Your task to perform on an android device: turn notification dots on Image 0: 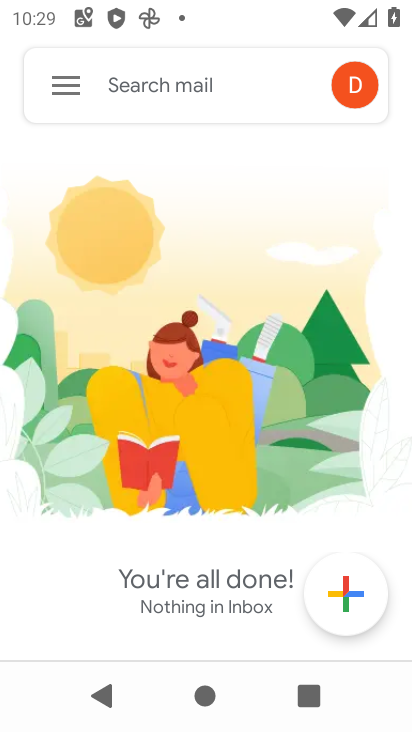
Step 0: press home button
Your task to perform on an android device: turn notification dots on Image 1: 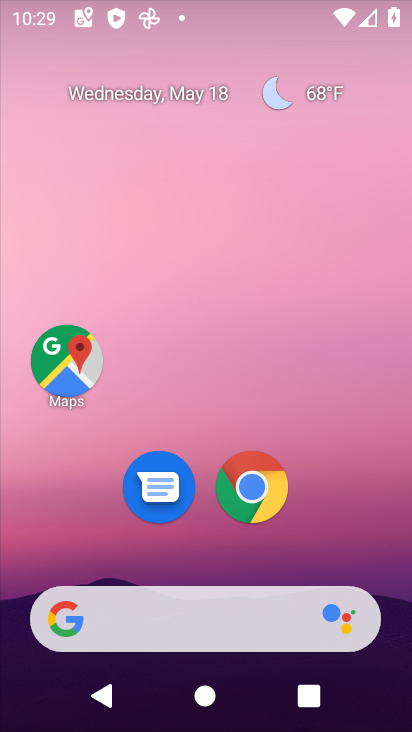
Step 1: drag from (391, 539) to (294, 189)
Your task to perform on an android device: turn notification dots on Image 2: 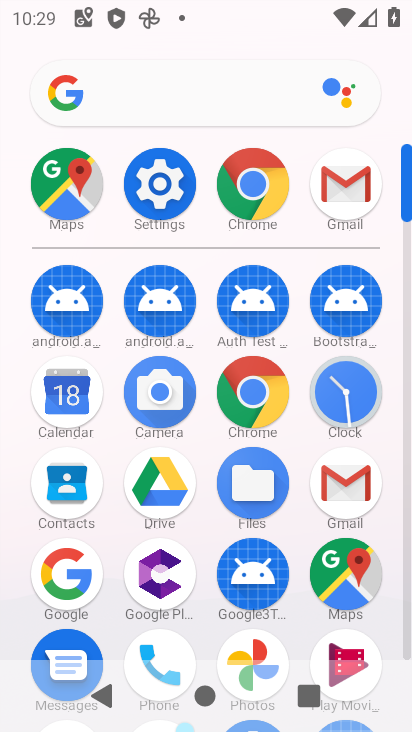
Step 2: click (164, 207)
Your task to perform on an android device: turn notification dots on Image 3: 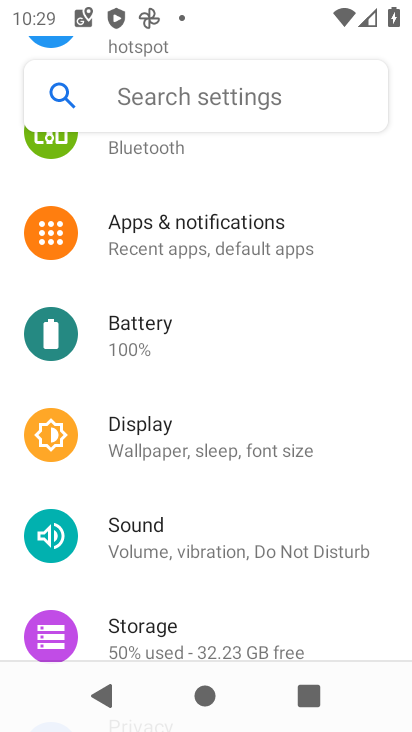
Step 3: click (184, 241)
Your task to perform on an android device: turn notification dots on Image 4: 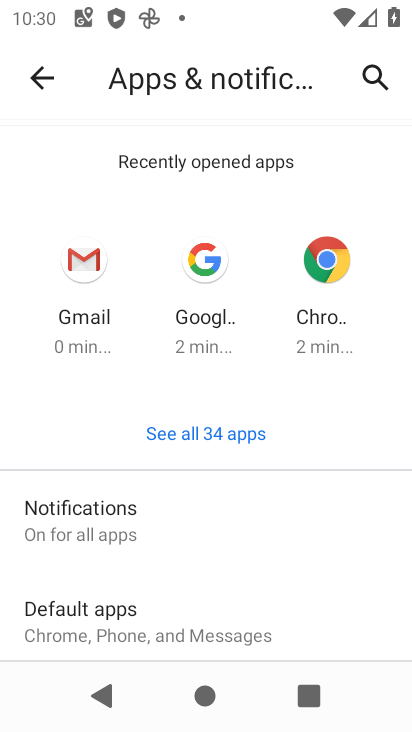
Step 4: drag from (115, 555) to (122, 276)
Your task to perform on an android device: turn notification dots on Image 5: 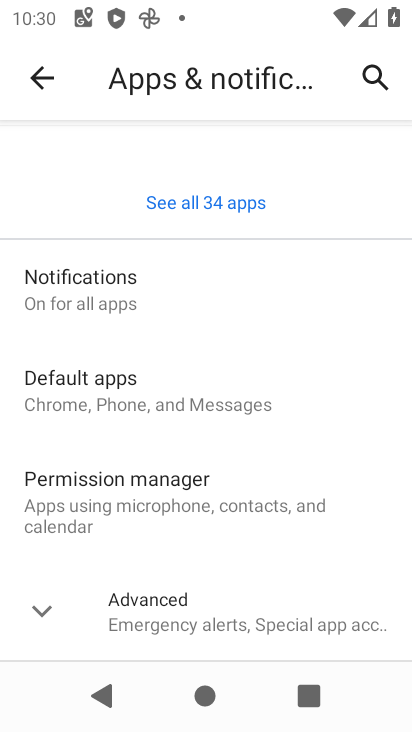
Step 5: drag from (200, 575) to (199, 307)
Your task to perform on an android device: turn notification dots on Image 6: 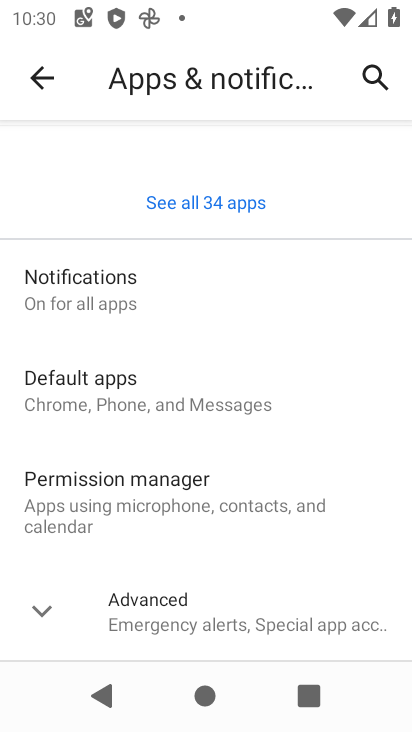
Step 6: click (201, 609)
Your task to perform on an android device: turn notification dots on Image 7: 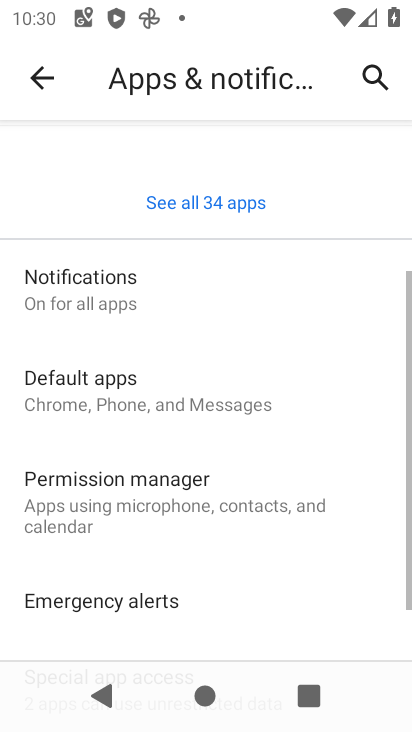
Step 7: drag from (216, 623) to (217, 361)
Your task to perform on an android device: turn notification dots on Image 8: 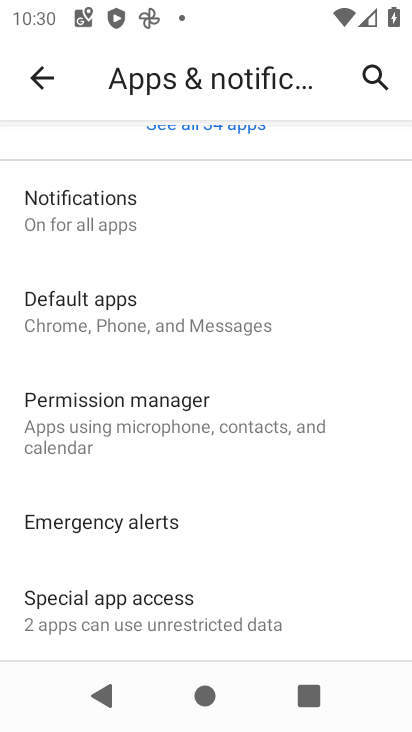
Step 8: click (107, 235)
Your task to perform on an android device: turn notification dots on Image 9: 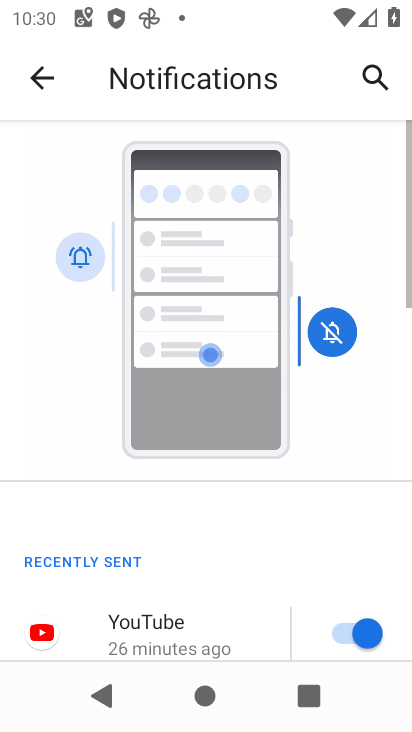
Step 9: drag from (204, 592) to (221, 246)
Your task to perform on an android device: turn notification dots on Image 10: 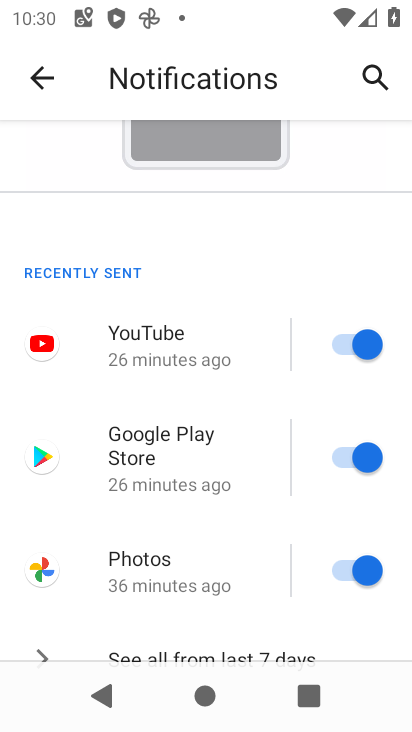
Step 10: drag from (239, 592) to (268, 281)
Your task to perform on an android device: turn notification dots on Image 11: 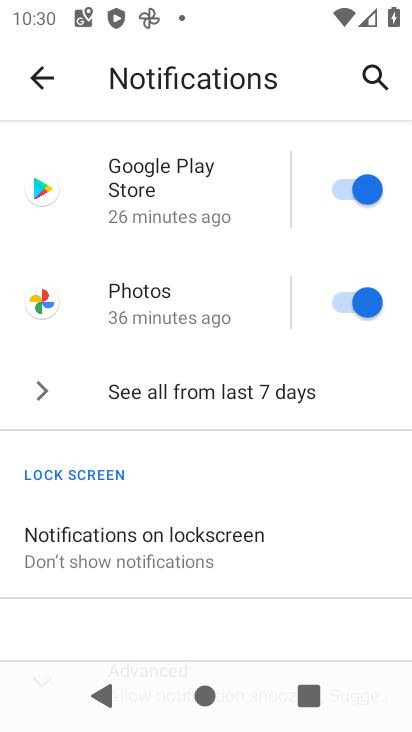
Step 11: drag from (247, 577) to (249, 275)
Your task to perform on an android device: turn notification dots on Image 12: 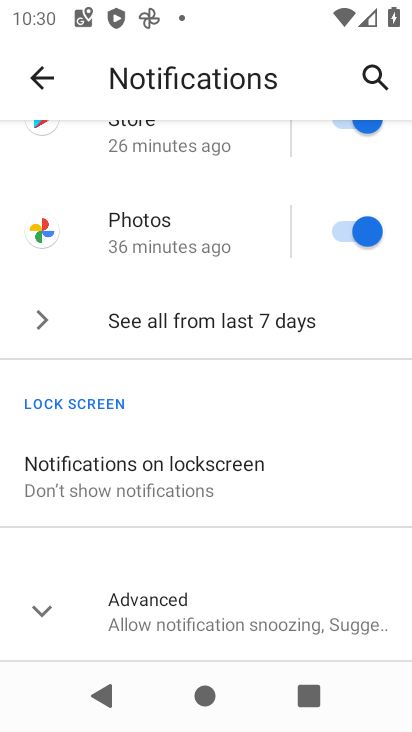
Step 12: click (240, 615)
Your task to perform on an android device: turn notification dots on Image 13: 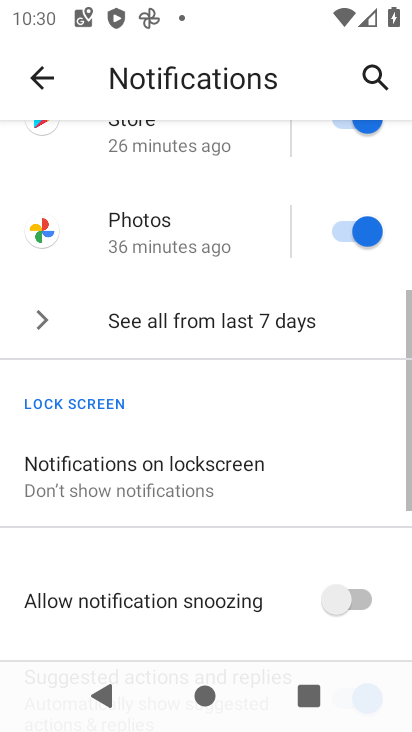
Step 13: task complete